Your task to perform on an android device: Open Chrome and go to settings Image 0: 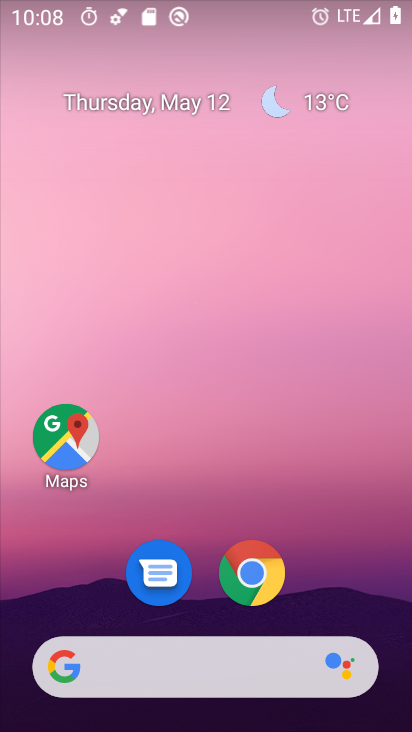
Step 0: click (243, 572)
Your task to perform on an android device: Open Chrome and go to settings Image 1: 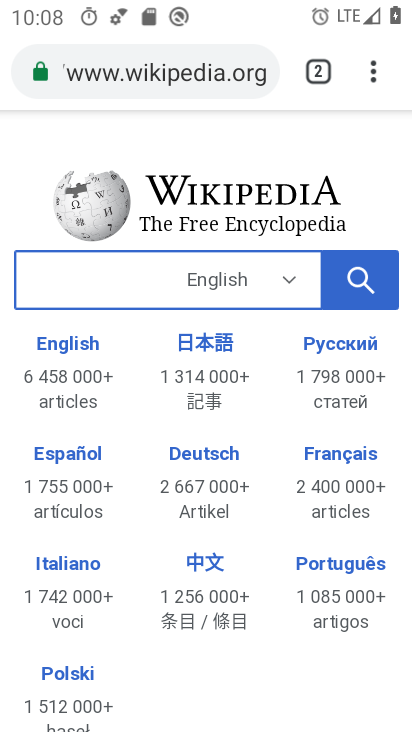
Step 1: click (374, 73)
Your task to perform on an android device: Open Chrome and go to settings Image 2: 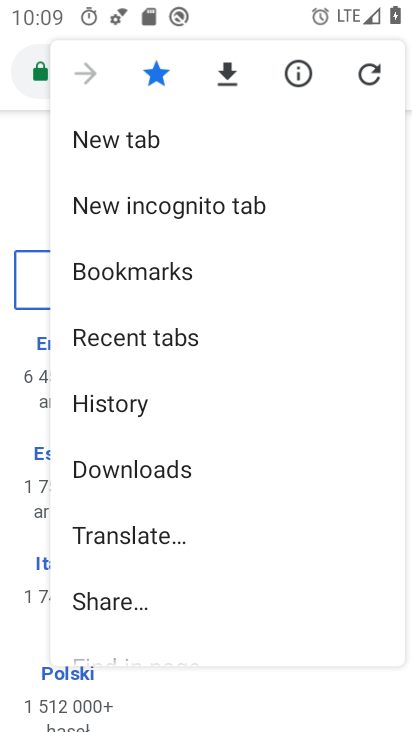
Step 2: drag from (269, 535) to (270, 328)
Your task to perform on an android device: Open Chrome and go to settings Image 3: 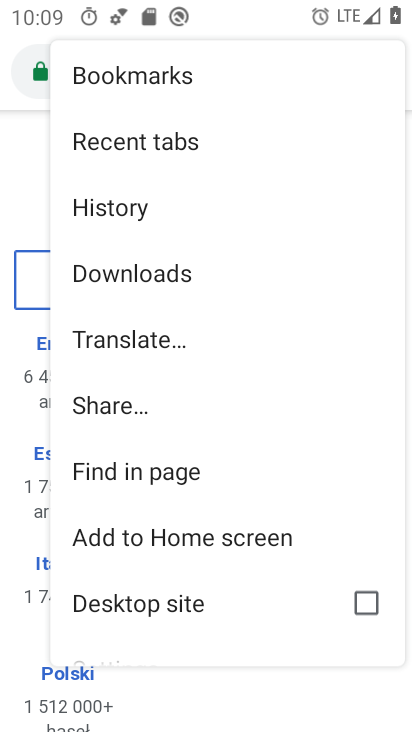
Step 3: drag from (305, 495) to (297, 175)
Your task to perform on an android device: Open Chrome and go to settings Image 4: 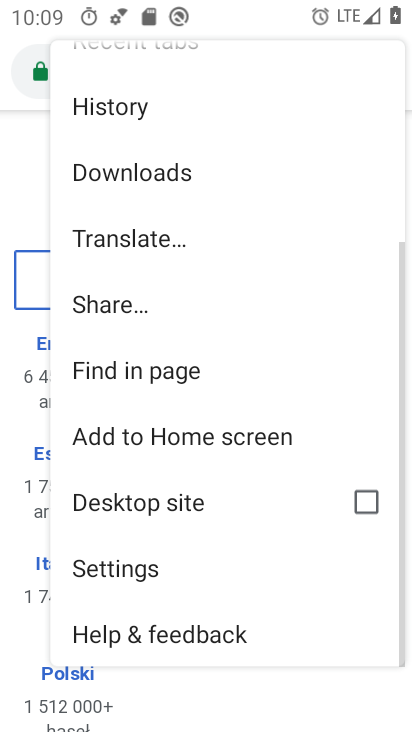
Step 4: click (136, 565)
Your task to perform on an android device: Open Chrome and go to settings Image 5: 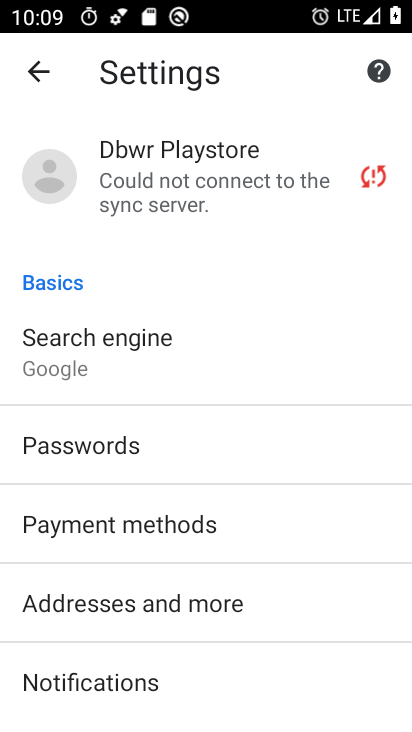
Step 5: task complete